Your task to perform on an android device: See recent photos Image 0: 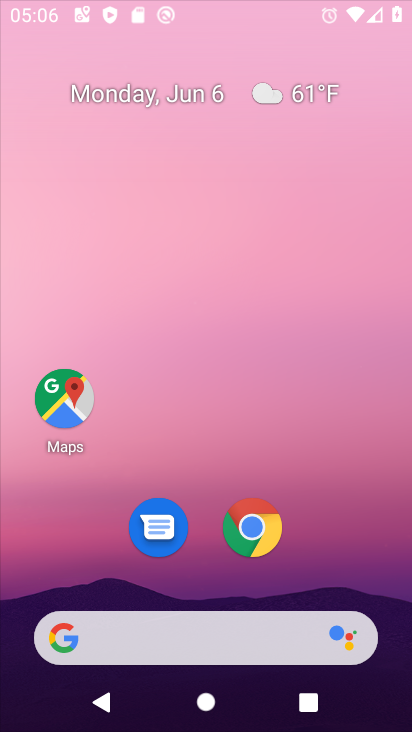
Step 0: click (372, 151)
Your task to perform on an android device: See recent photos Image 1: 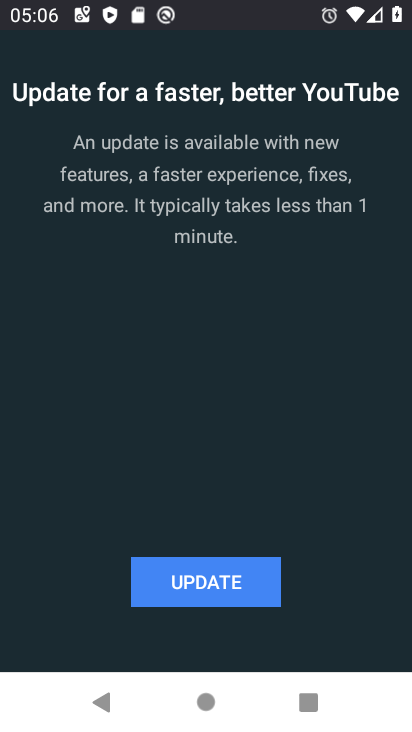
Step 1: press back button
Your task to perform on an android device: See recent photos Image 2: 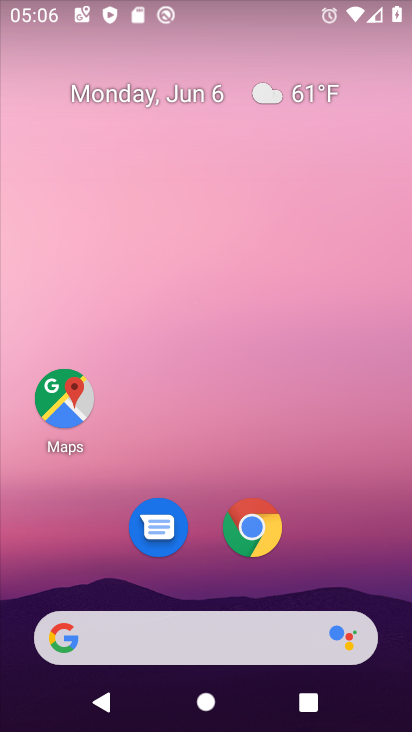
Step 2: drag from (399, 706) to (359, 132)
Your task to perform on an android device: See recent photos Image 3: 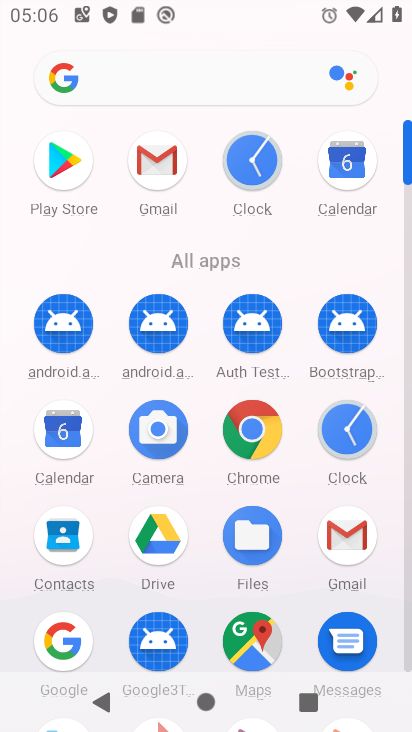
Step 3: drag from (298, 650) to (292, 201)
Your task to perform on an android device: See recent photos Image 4: 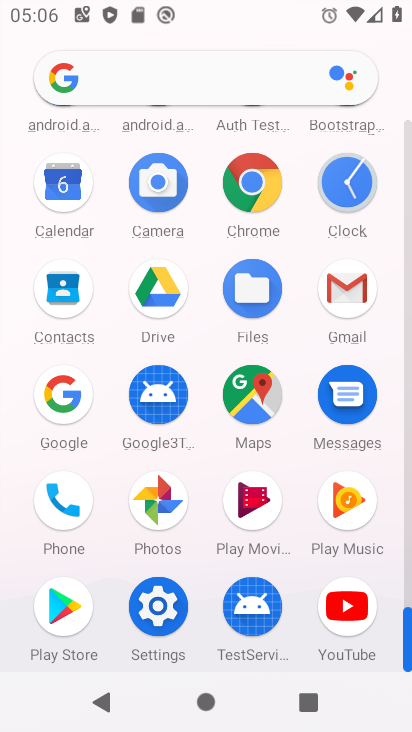
Step 4: click (161, 508)
Your task to perform on an android device: See recent photos Image 5: 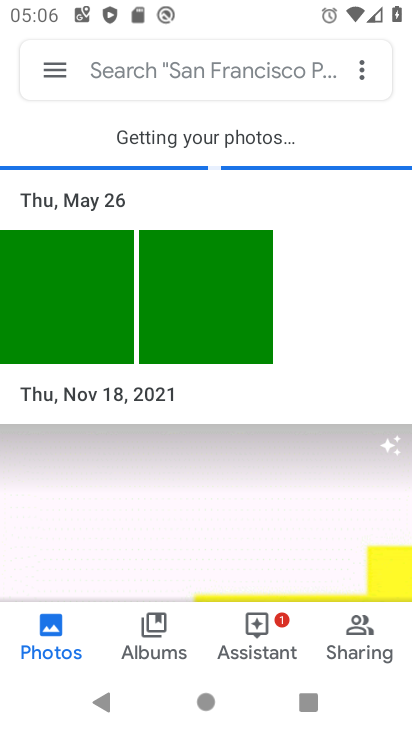
Step 5: drag from (283, 558) to (267, 229)
Your task to perform on an android device: See recent photos Image 6: 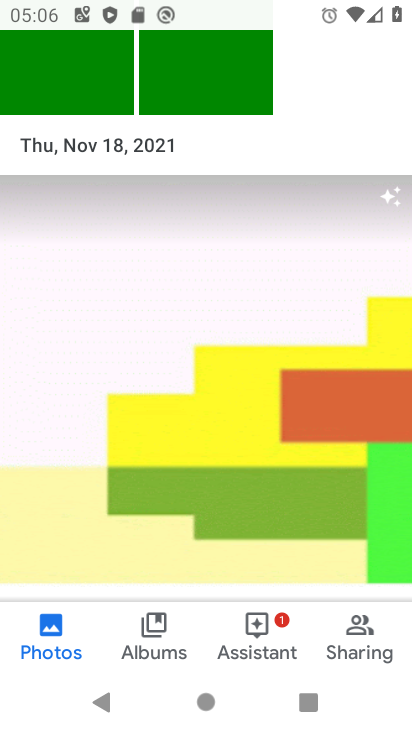
Step 6: drag from (239, 387) to (232, 151)
Your task to perform on an android device: See recent photos Image 7: 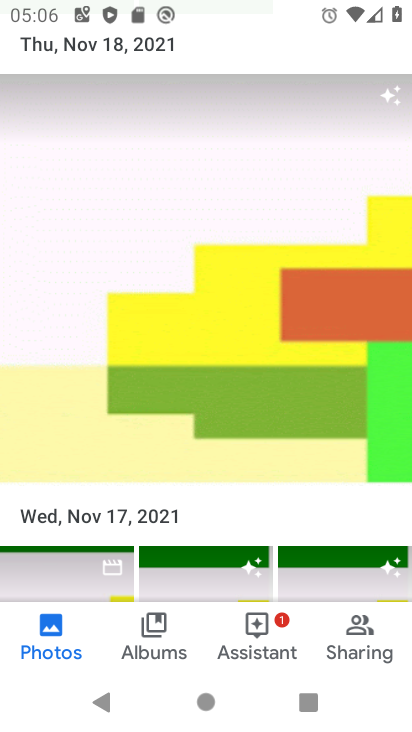
Step 7: drag from (228, 504) to (213, 193)
Your task to perform on an android device: See recent photos Image 8: 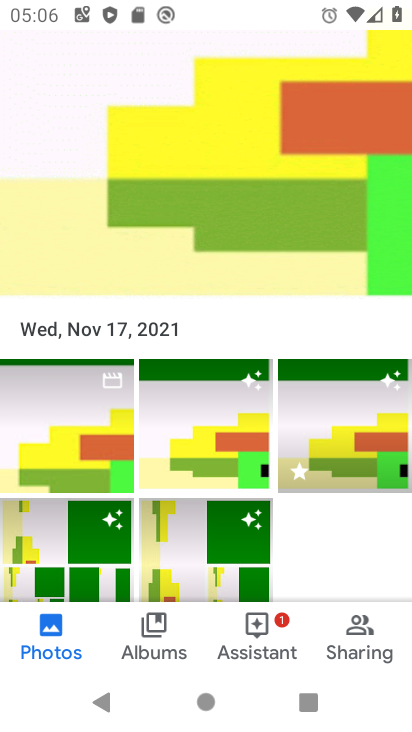
Step 8: click (196, 444)
Your task to perform on an android device: See recent photos Image 9: 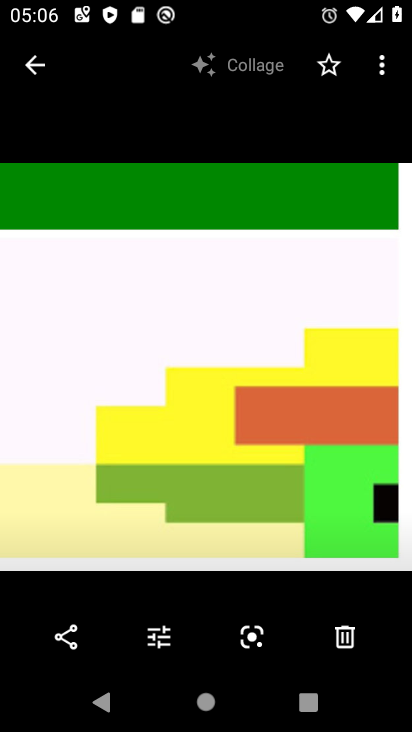
Step 9: click (38, 77)
Your task to perform on an android device: See recent photos Image 10: 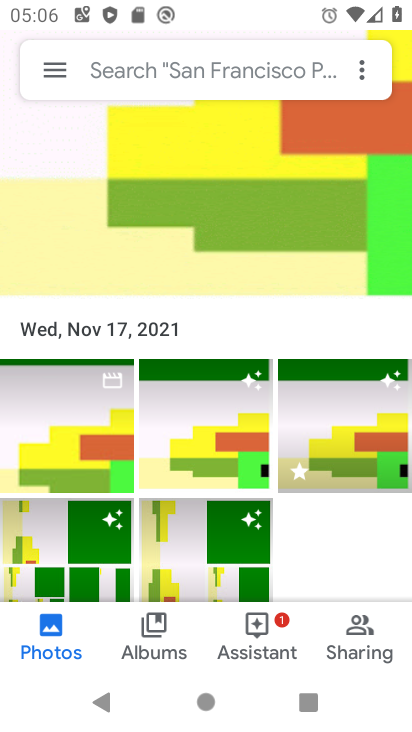
Step 10: click (331, 436)
Your task to perform on an android device: See recent photos Image 11: 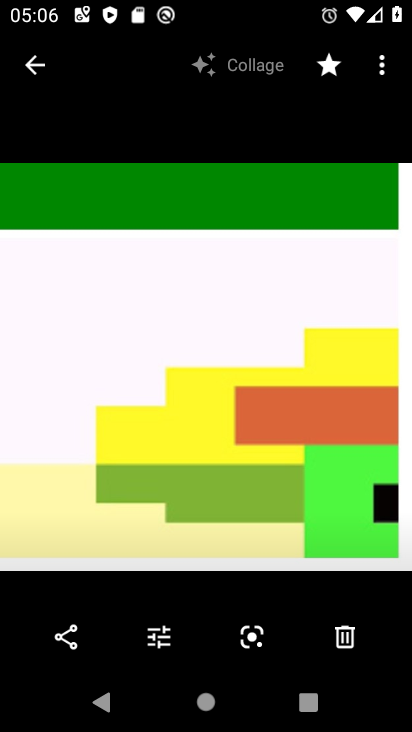
Step 11: click (29, 60)
Your task to perform on an android device: See recent photos Image 12: 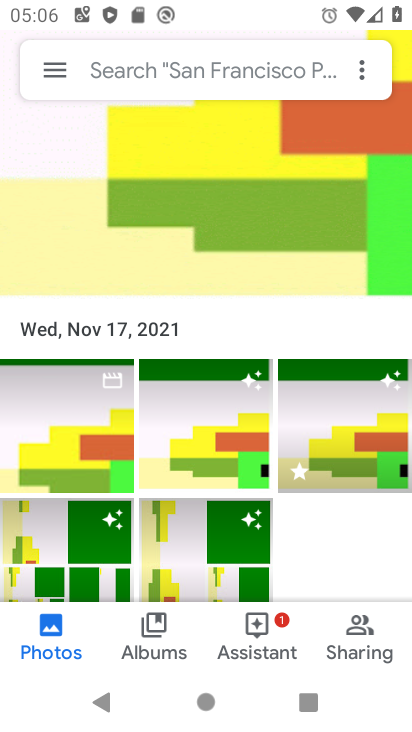
Step 12: click (162, 556)
Your task to perform on an android device: See recent photos Image 13: 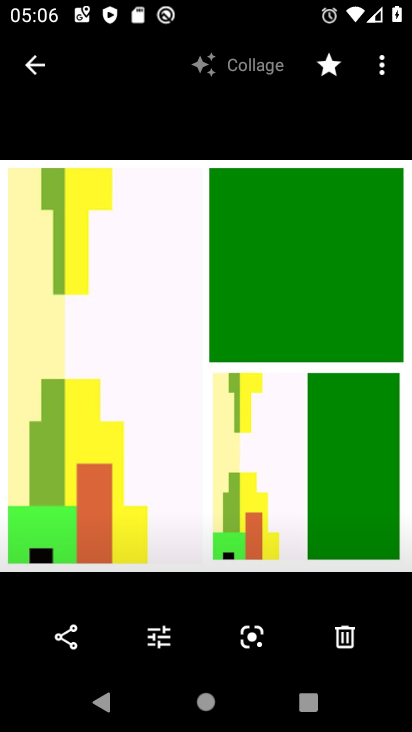
Step 13: click (22, 60)
Your task to perform on an android device: See recent photos Image 14: 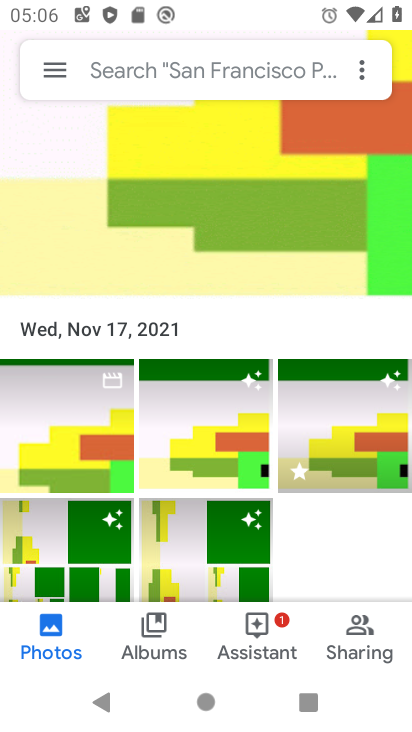
Step 14: task complete